Your task to perform on an android device: turn off notifications in google photos Image 0: 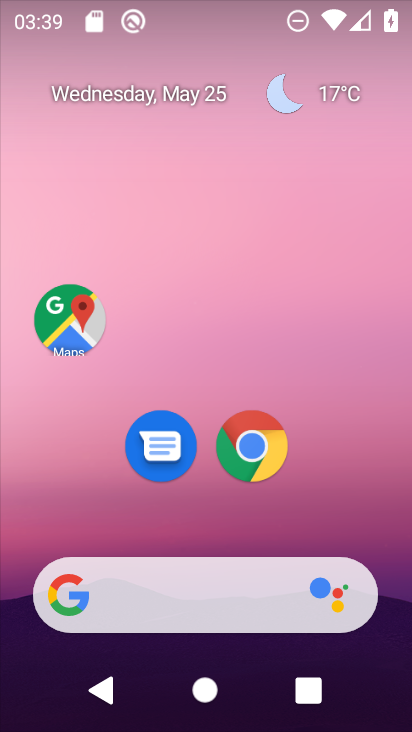
Step 0: drag from (192, 550) to (261, 174)
Your task to perform on an android device: turn off notifications in google photos Image 1: 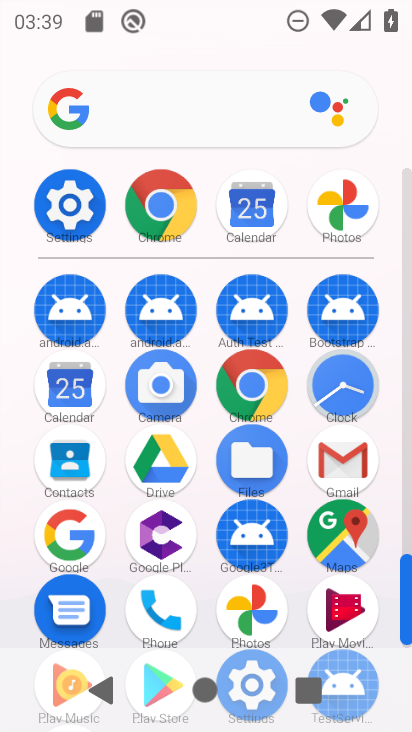
Step 1: click (267, 610)
Your task to perform on an android device: turn off notifications in google photos Image 2: 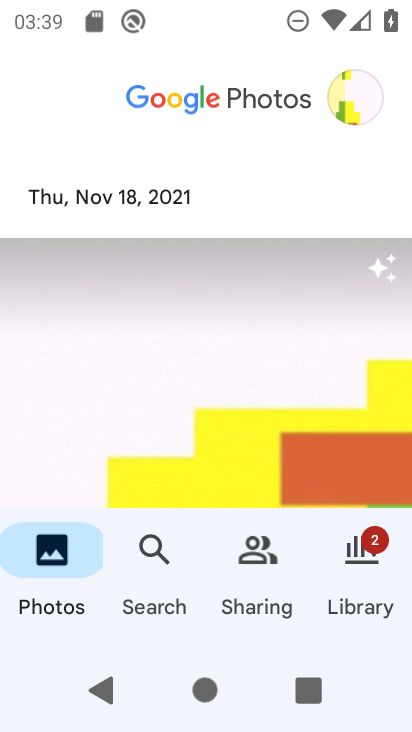
Step 2: click (371, 90)
Your task to perform on an android device: turn off notifications in google photos Image 3: 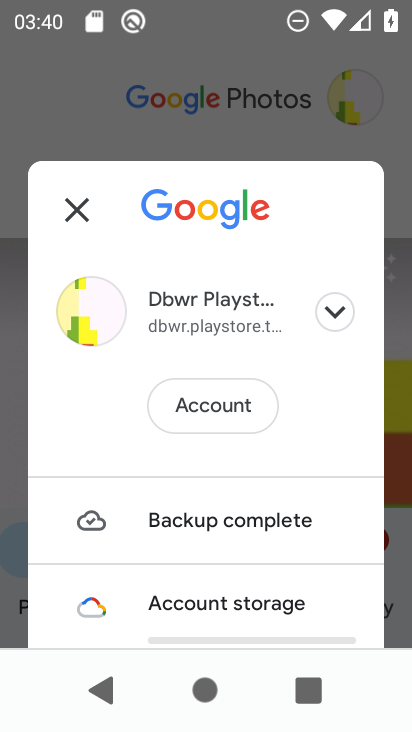
Step 3: drag from (184, 563) to (230, 195)
Your task to perform on an android device: turn off notifications in google photos Image 4: 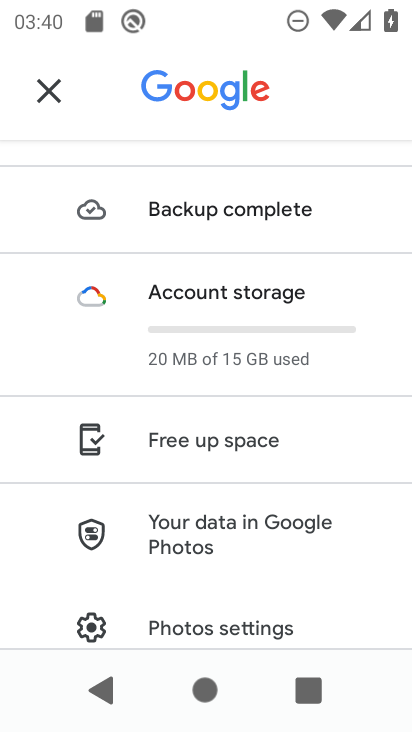
Step 4: click (231, 626)
Your task to perform on an android device: turn off notifications in google photos Image 5: 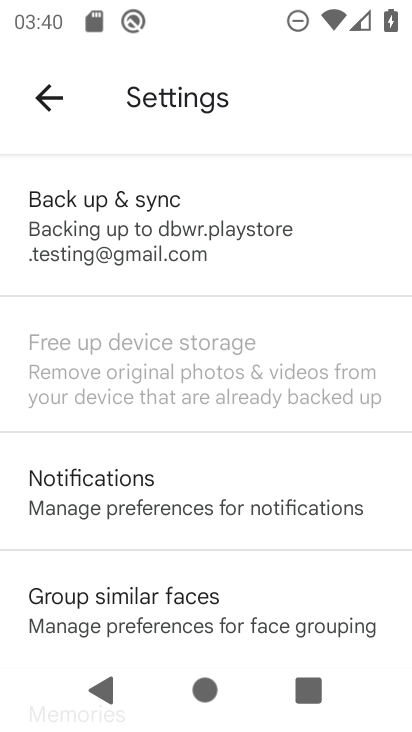
Step 5: drag from (213, 604) to (206, 475)
Your task to perform on an android device: turn off notifications in google photos Image 6: 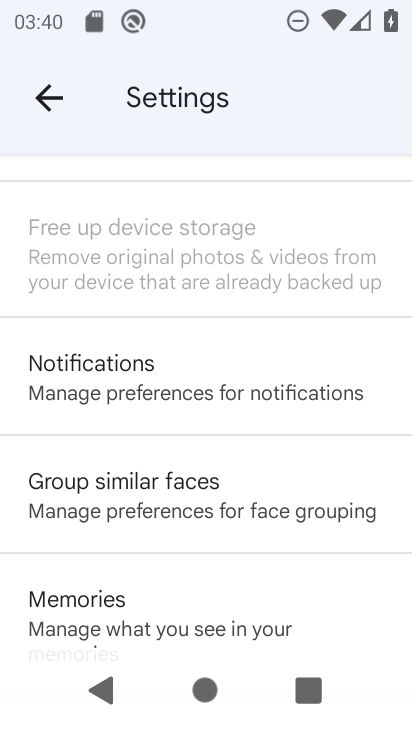
Step 6: click (163, 370)
Your task to perform on an android device: turn off notifications in google photos Image 7: 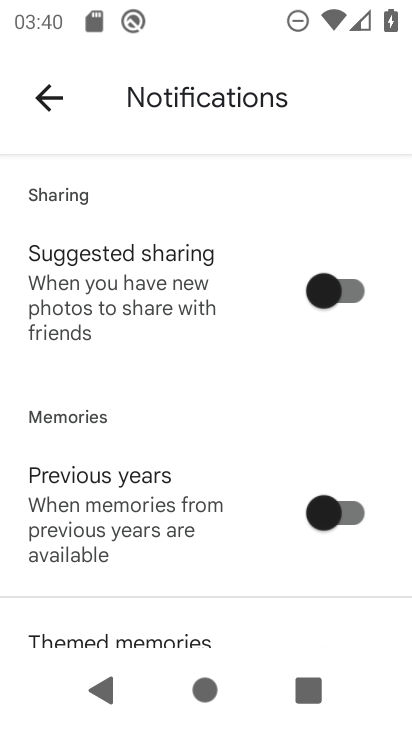
Step 7: drag from (230, 572) to (203, 87)
Your task to perform on an android device: turn off notifications in google photos Image 8: 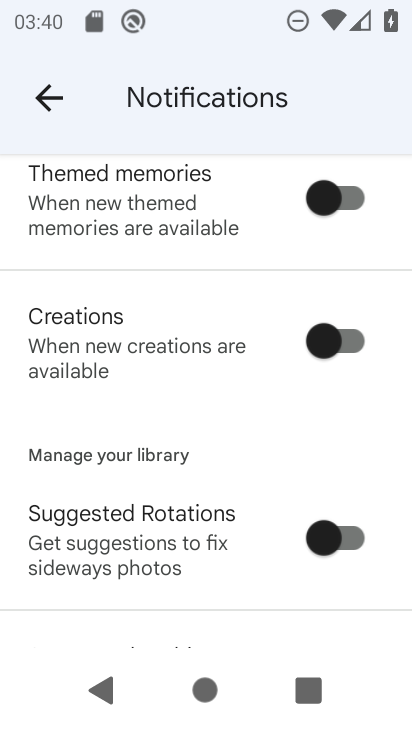
Step 8: drag from (205, 562) to (179, 121)
Your task to perform on an android device: turn off notifications in google photos Image 9: 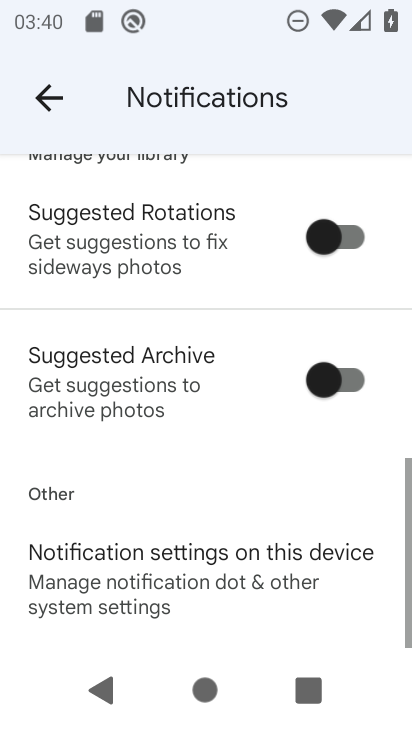
Step 9: click (205, 557)
Your task to perform on an android device: turn off notifications in google photos Image 10: 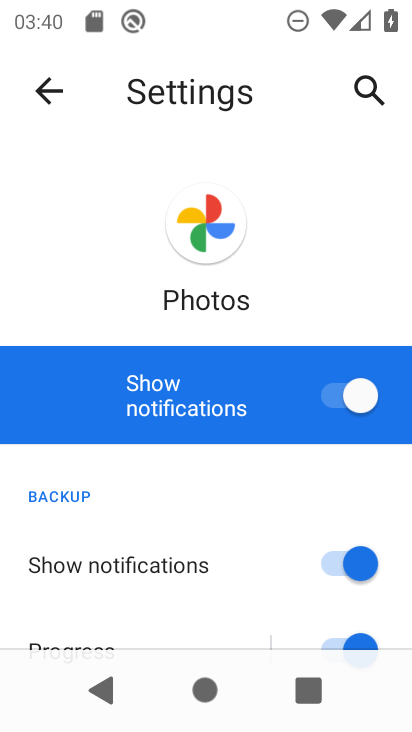
Step 10: click (360, 407)
Your task to perform on an android device: turn off notifications in google photos Image 11: 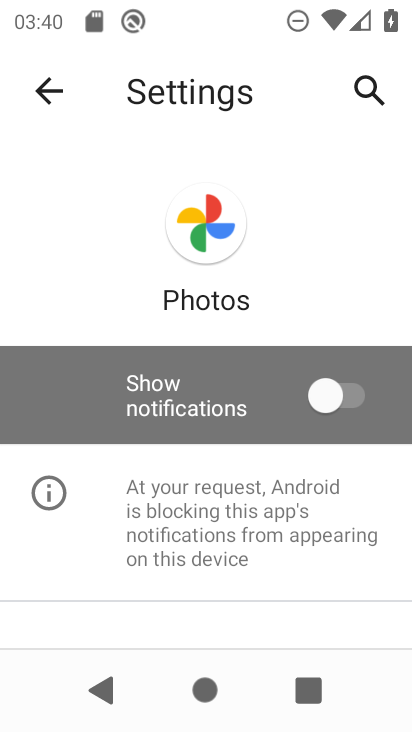
Step 11: task complete